Your task to perform on an android device: open a bookmark in the chrome app Image 0: 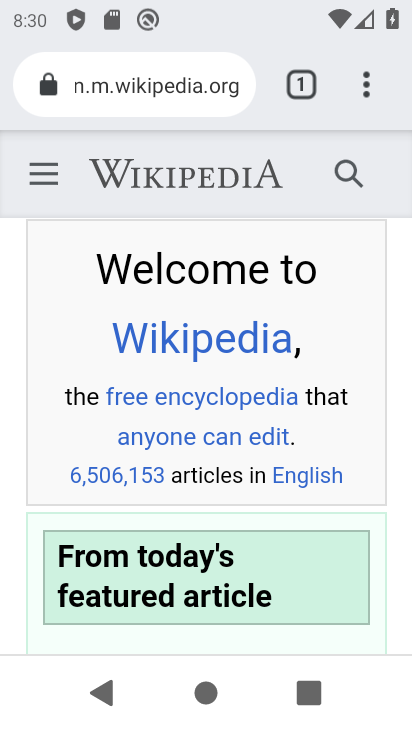
Step 0: press home button
Your task to perform on an android device: open a bookmark in the chrome app Image 1: 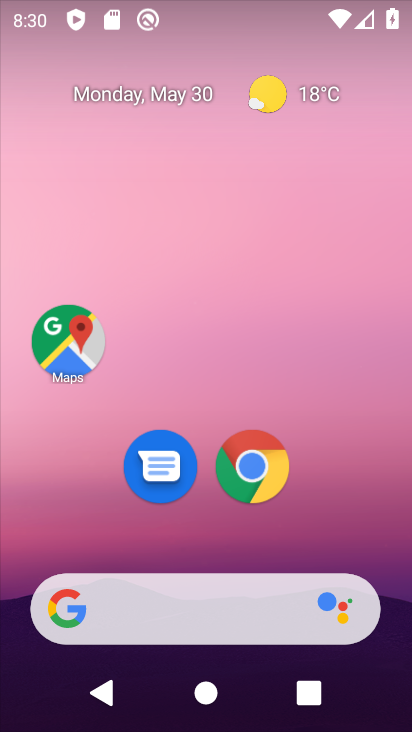
Step 1: click (248, 466)
Your task to perform on an android device: open a bookmark in the chrome app Image 2: 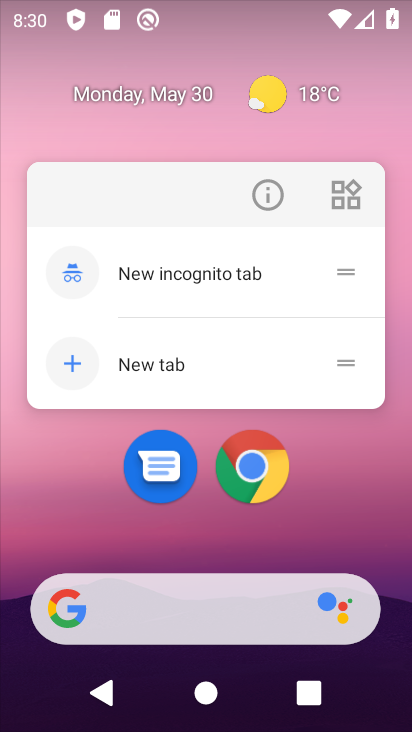
Step 2: click (244, 462)
Your task to perform on an android device: open a bookmark in the chrome app Image 3: 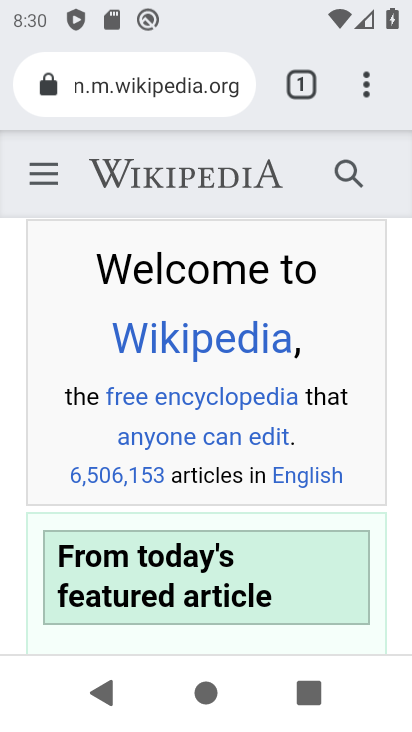
Step 3: task complete